Your task to perform on an android device: open a new tab in the chrome app Image 0: 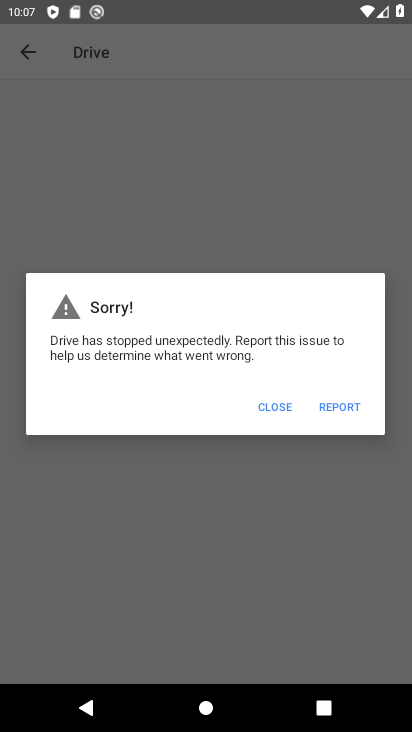
Step 0: click (131, 563)
Your task to perform on an android device: open a new tab in the chrome app Image 1: 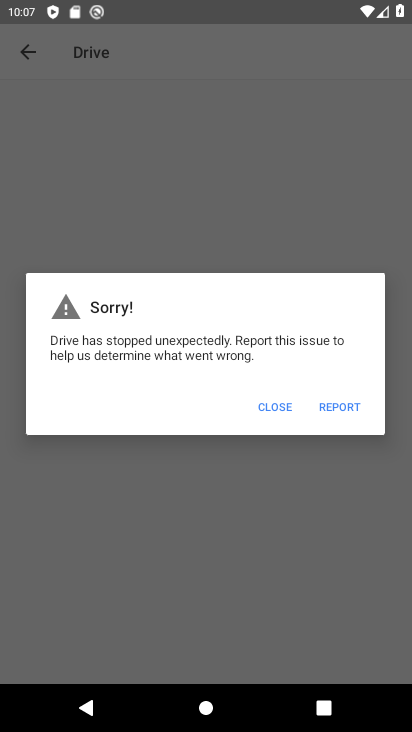
Step 1: press home button
Your task to perform on an android device: open a new tab in the chrome app Image 2: 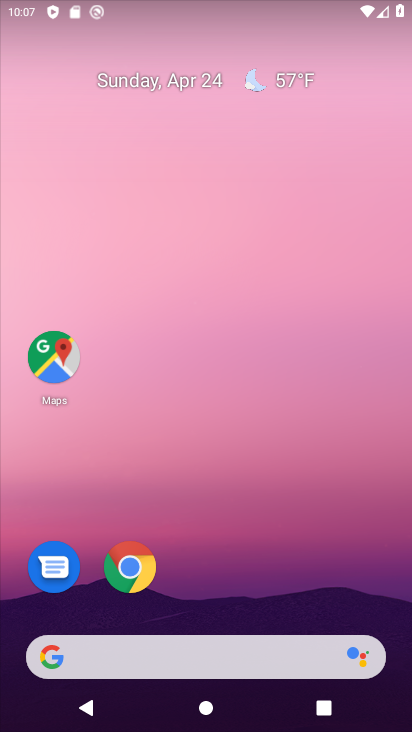
Step 2: click (124, 570)
Your task to perform on an android device: open a new tab in the chrome app Image 3: 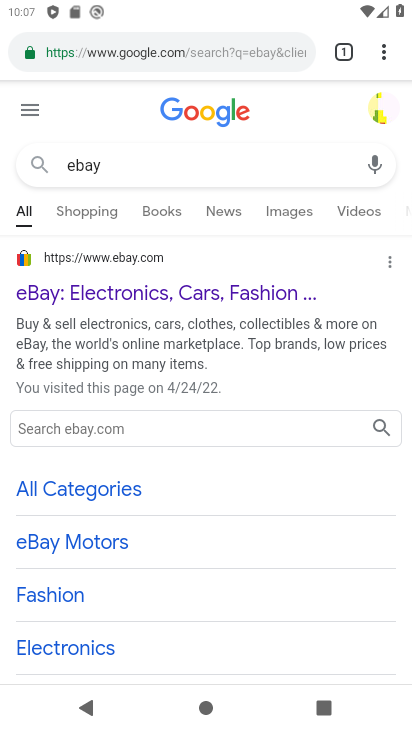
Step 3: click (381, 44)
Your task to perform on an android device: open a new tab in the chrome app Image 4: 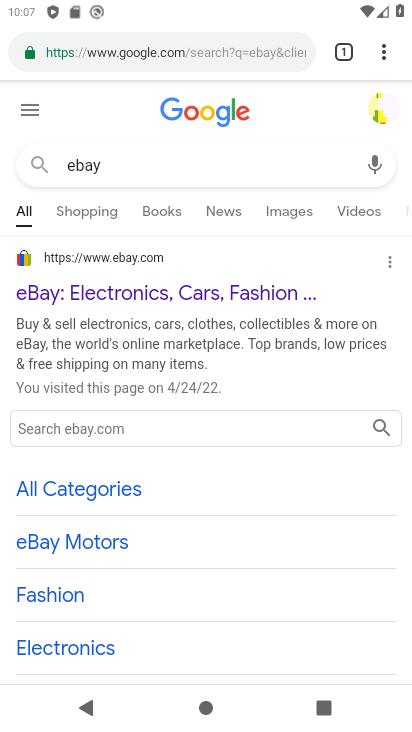
Step 4: click (381, 45)
Your task to perform on an android device: open a new tab in the chrome app Image 5: 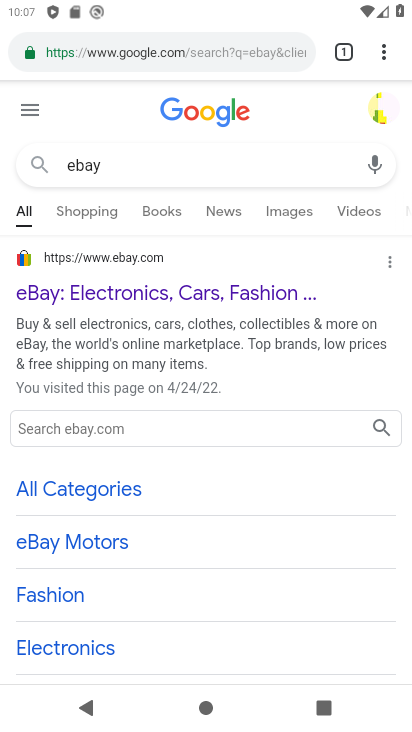
Step 5: click (381, 46)
Your task to perform on an android device: open a new tab in the chrome app Image 6: 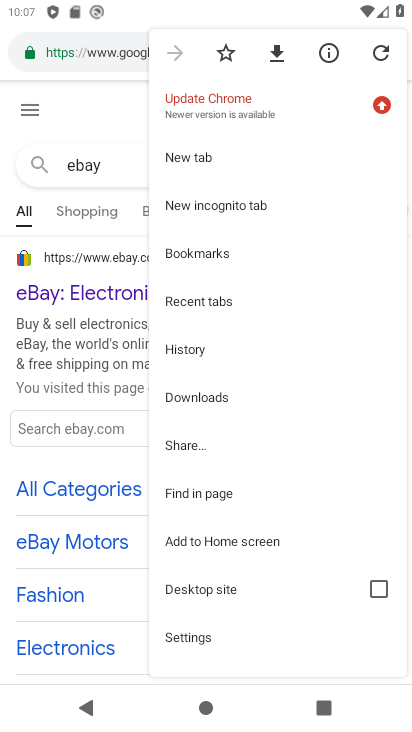
Step 6: click (192, 156)
Your task to perform on an android device: open a new tab in the chrome app Image 7: 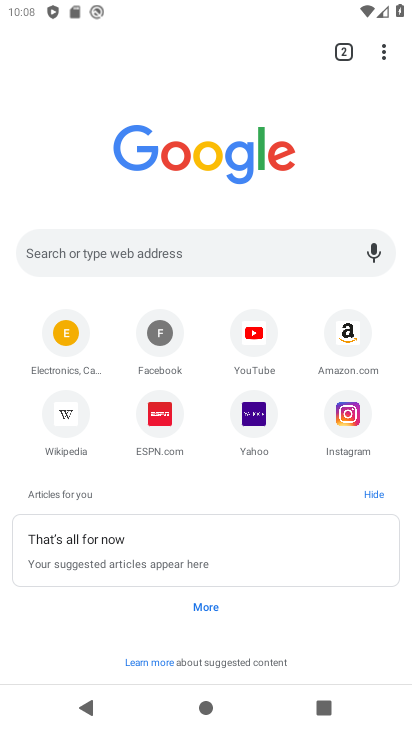
Step 7: task complete